Your task to perform on an android device: open app "Adobe Acrobat Reader: Edit PDF" Image 0: 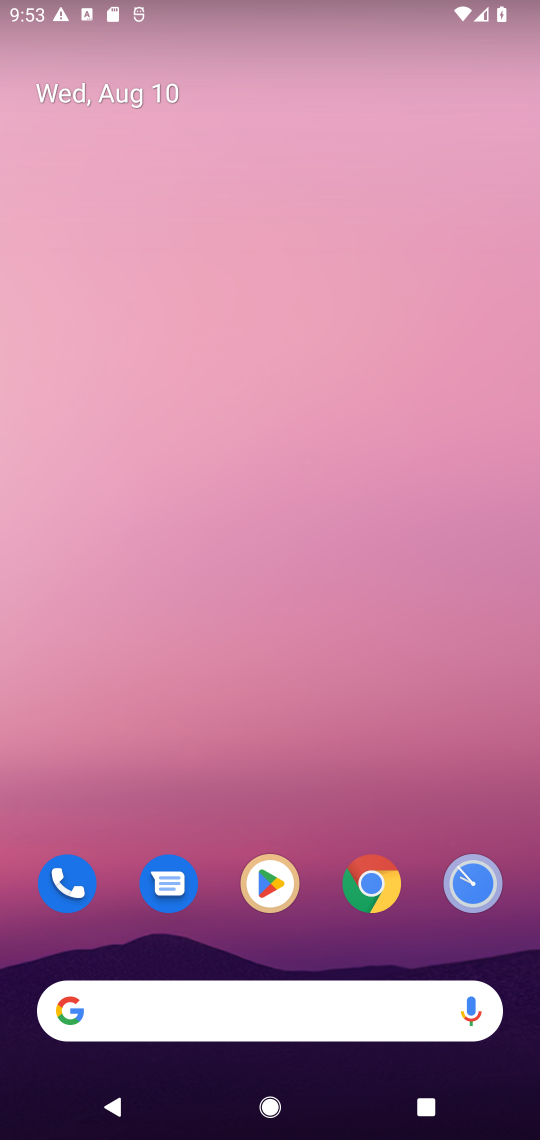
Step 0: click (271, 868)
Your task to perform on an android device: open app "Adobe Acrobat Reader: Edit PDF" Image 1: 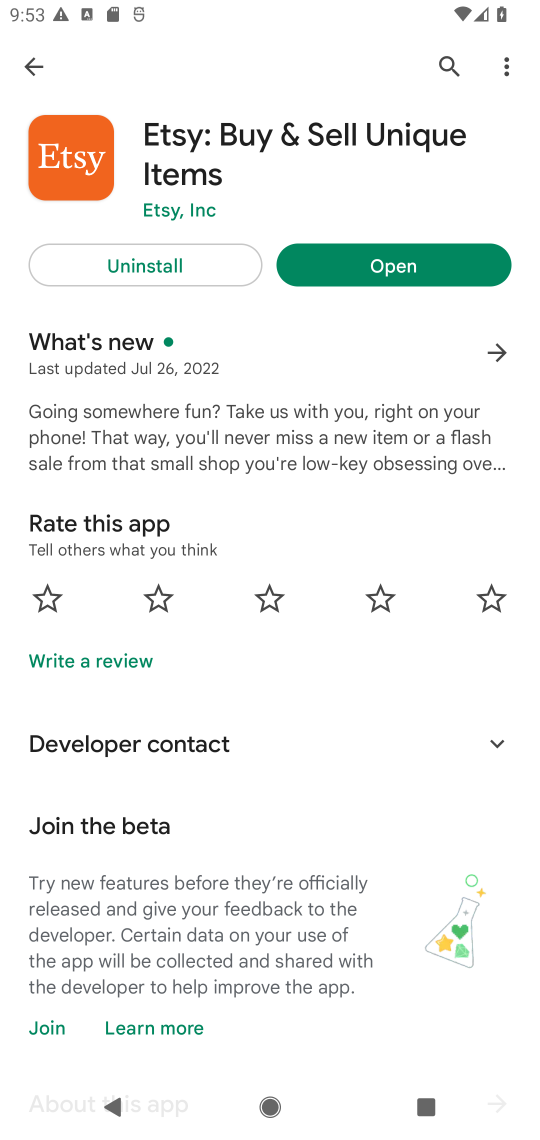
Step 1: click (444, 58)
Your task to perform on an android device: open app "Adobe Acrobat Reader: Edit PDF" Image 2: 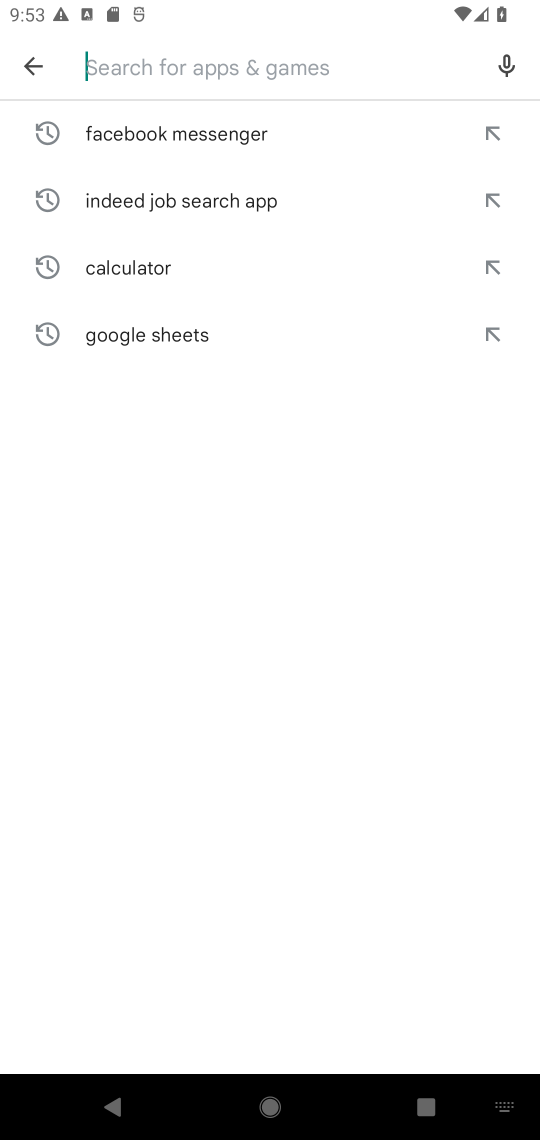
Step 2: type "Adobe Acrobat Reader: Edit PDF"
Your task to perform on an android device: open app "Adobe Acrobat Reader: Edit PDF" Image 3: 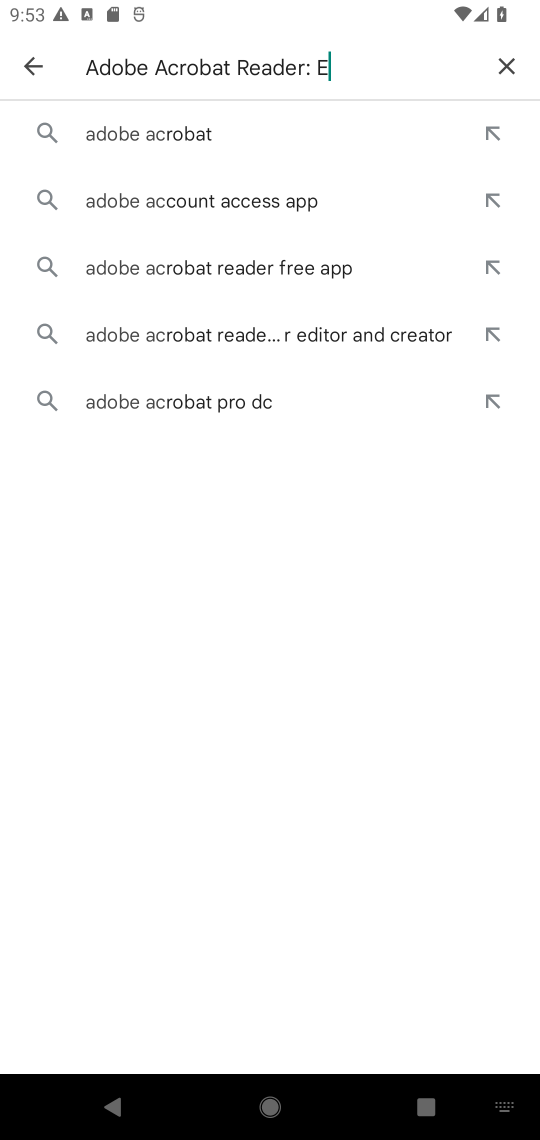
Step 3: type ""
Your task to perform on an android device: open app "Adobe Acrobat Reader: Edit PDF" Image 4: 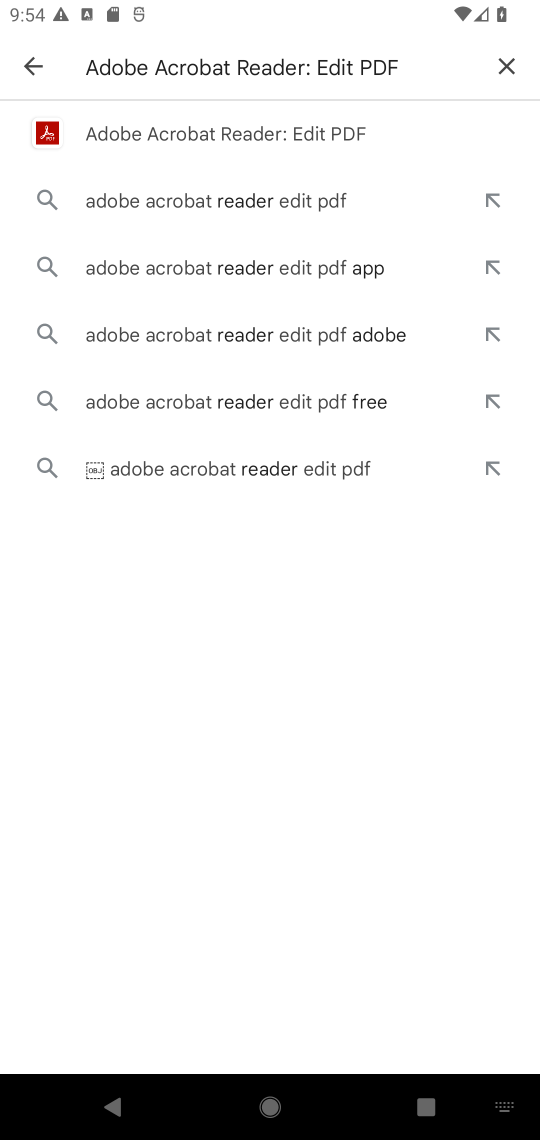
Step 4: click (198, 138)
Your task to perform on an android device: open app "Adobe Acrobat Reader: Edit PDF" Image 5: 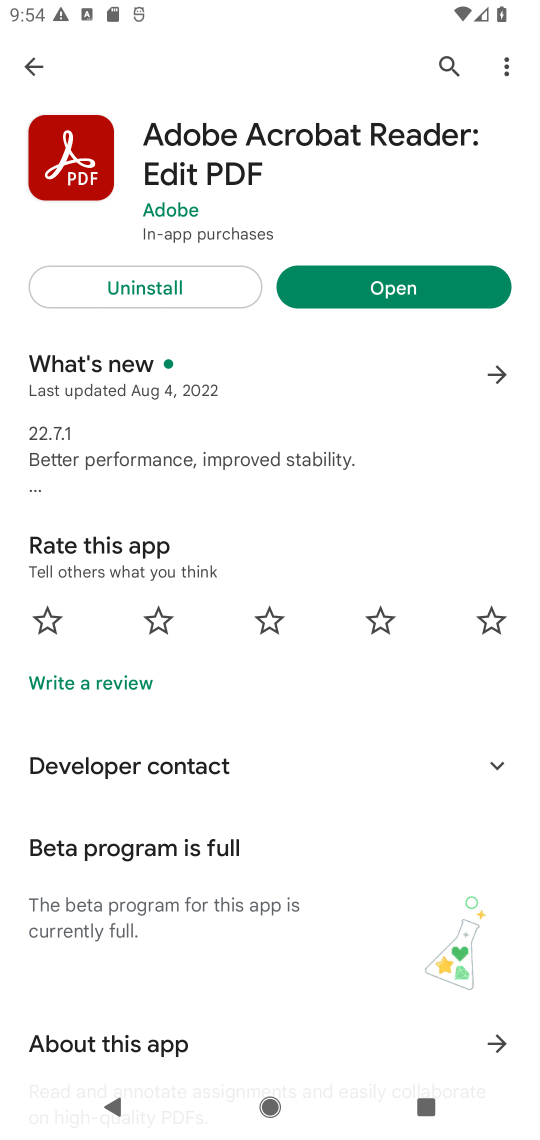
Step 5: click (428, 289)
Your task to perform on an android device: open app "Adobe Acrobat Reader: Edit PDF" Image 6: 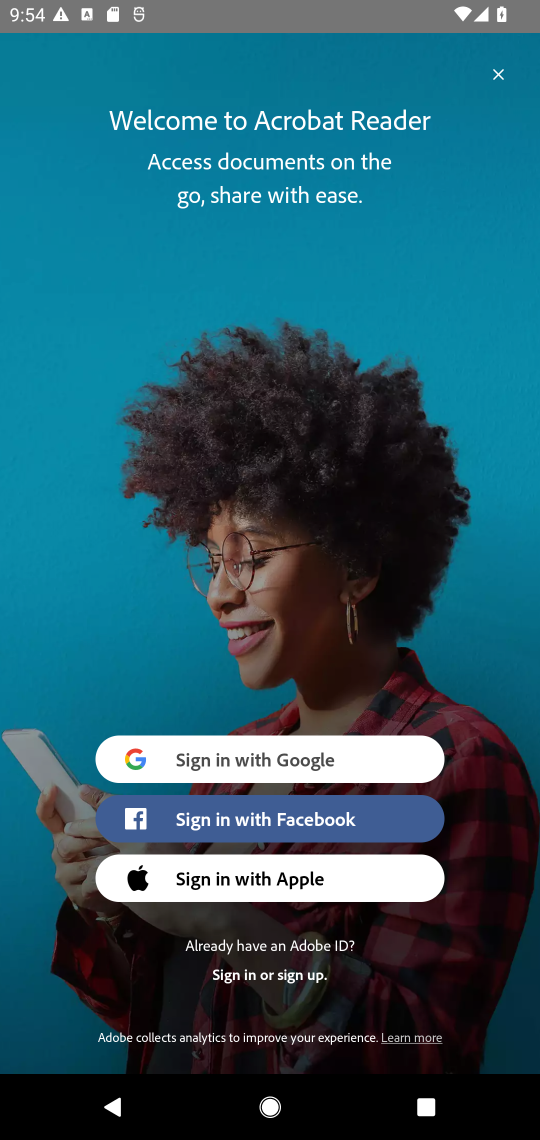
Step 6: task complete